Your task to perform on an android device: allow notifications from all sites in the chrome app Image 0: 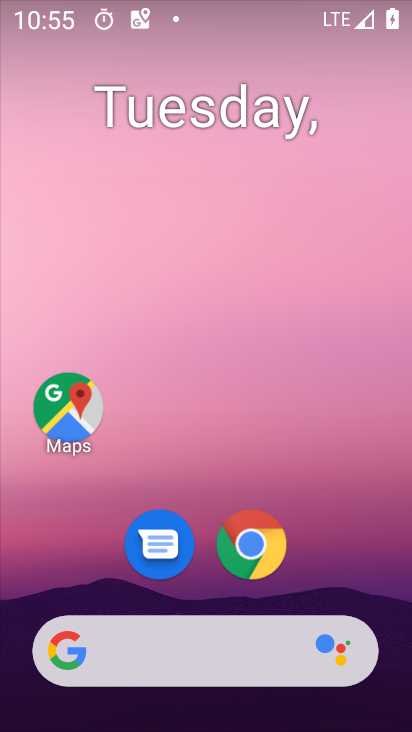
Step 0: click (281, 532)
Your task to perform on an android device: allow notifications from all sites in the chrome app Image 1: 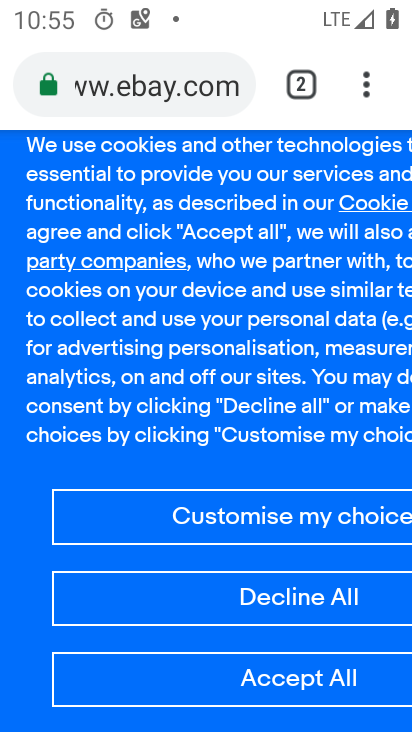
Step 1: click (376, 84)
Your task to perform on an android device: allow notifications from all sites in the chrome app Image 2: 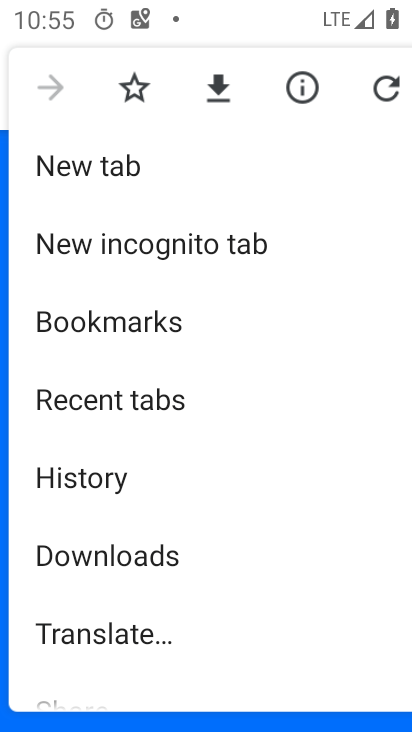
Step 2: drag from (222, 621) to (247, 276)
Your task to perform on an android device: allow notifications from all sites in the chrome app Image 3: 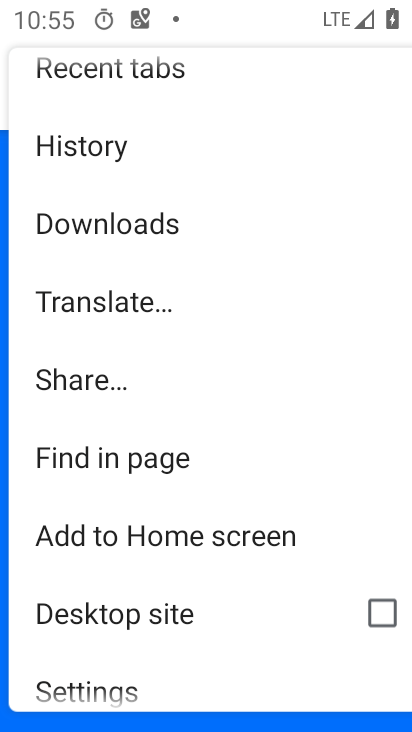
Step 3: click (249, 687)
Your task to perform on an android device: allow notifications from all sites in the chrome app Image 4: 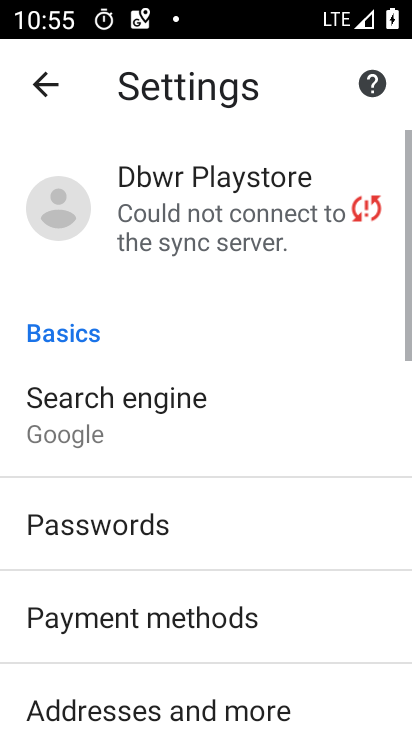
Step 4: drag from (262, 690) to (231, 253)
Your task to perform on an android device: allow notifications from all sites in the chrome app Image 5: 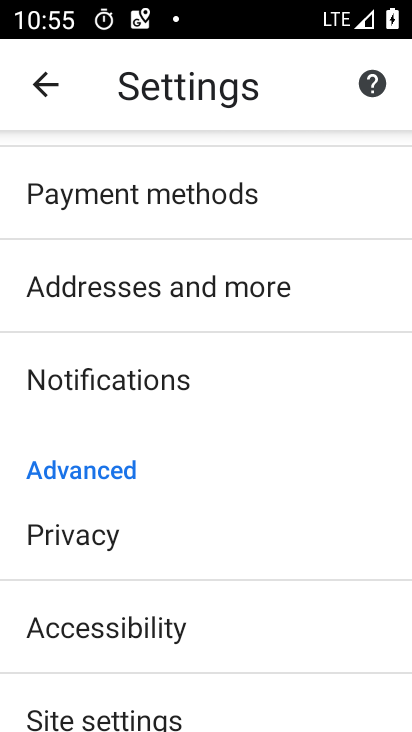
Step 5: drag from (300, 650) to (280, 299)
Your task to perform on an android device: allow notifications from all sites in the chrome app Image 6: 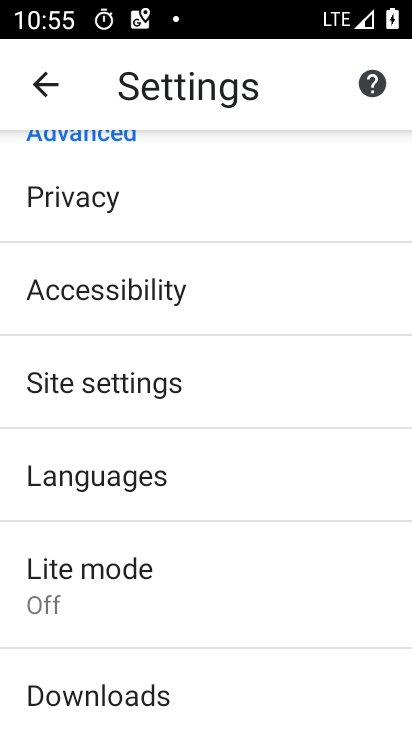
Step 6: click (293, 396)
Your task to perform on an android device: allow notifications from all sites in the chrome app Image 7: 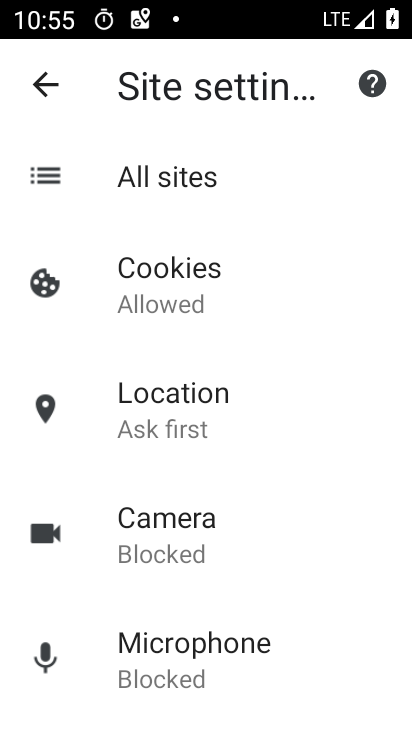
Step 7: drag from (308, 631) to (297, 443)
Your task to perform on an android device: allow notifications from all sites in the chrome app Image 8: 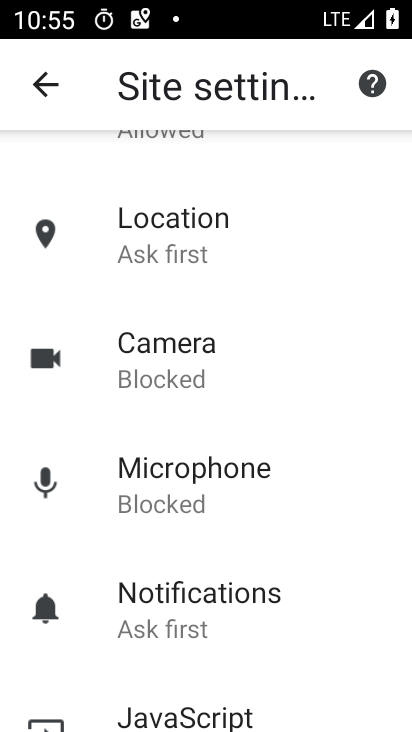
Step 8: click (277, 611)
Your task to perform on an android device: allow notifications from all sites in the chrome app Image 9: 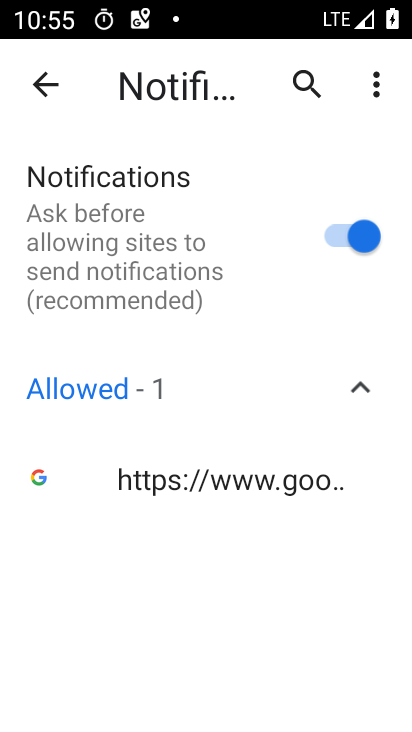
Step 9: task complete